Your task to perform on an android device: open wifi settings Image 0: 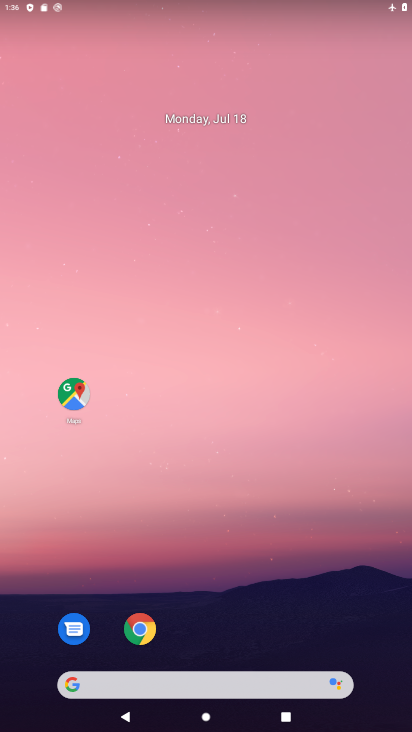
Step 0: drag from (238, 647) to (205, 50)
Your task to perform on an android device: open wifi settings Image 1: 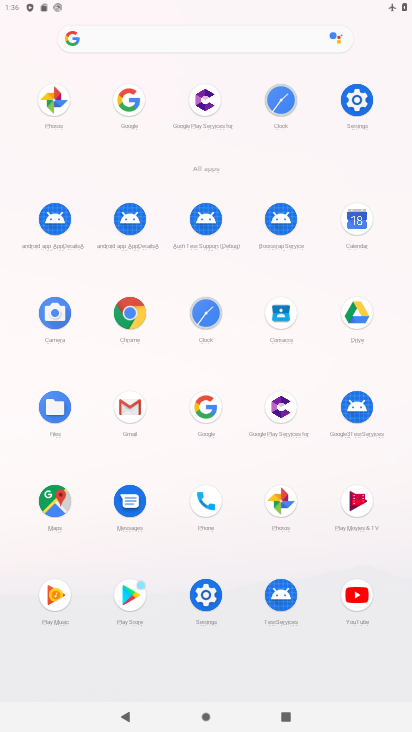
Step 1: click (359, 99)
Your task to perform on an android device: open wifi settings Image 2: 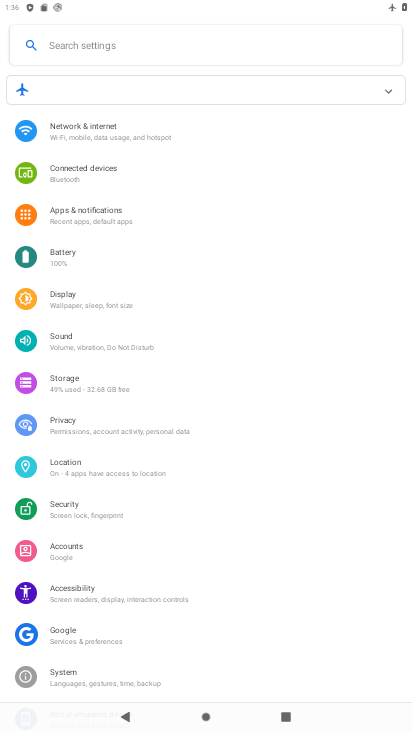
Step 2: click (74, 132)
Your task to perform on an android device: open wifi settings Image 3: 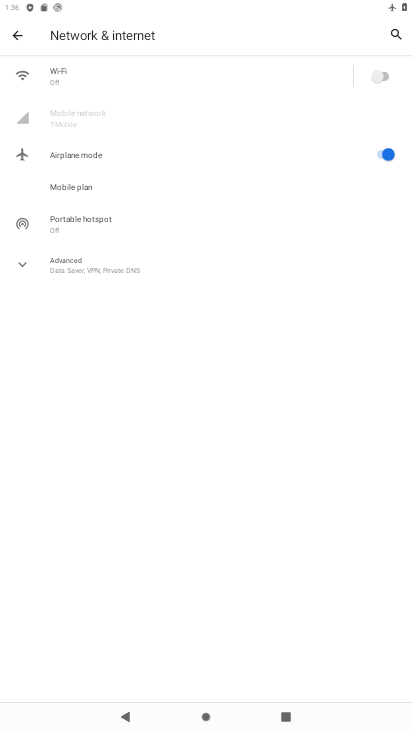
Step 3: click (379, 152)
Your task to perform on an android device: open wifi settings Image 4: 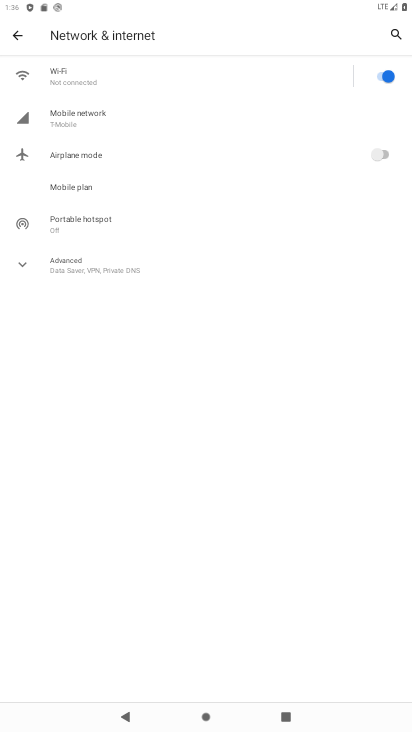
Step 4: click (381, 77)
Your task to perform on an android device: open wifi settings Image 5: 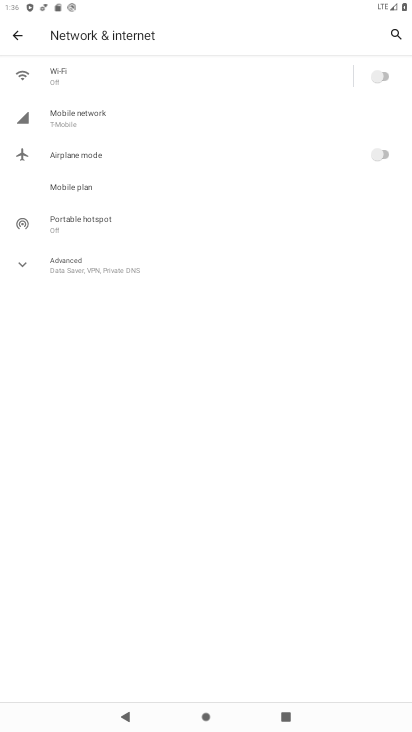
Step 5: click (260, 86)
Your task to perform on an android device: open wifi settings Image 6: 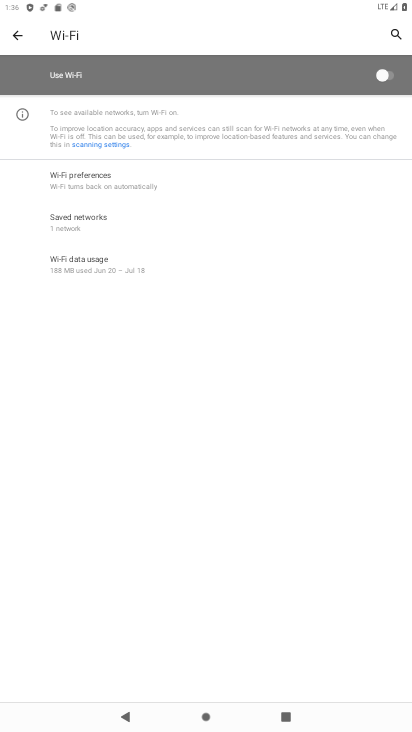
Step 6: click (389, 76)
Your task to perform on an android device: open wifi settings Image 7: 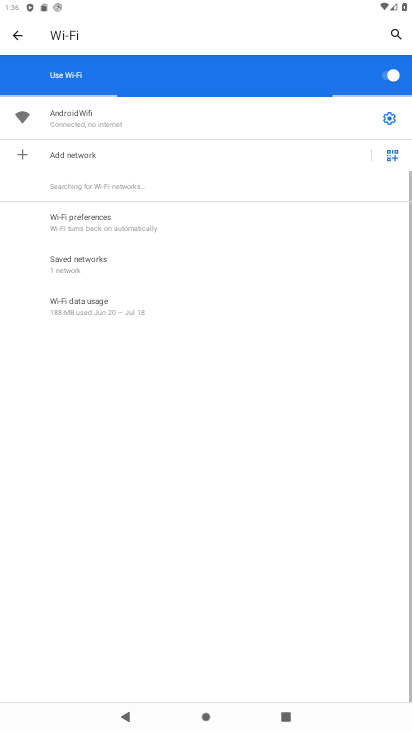
Step 7: click (390, 120)
Your task to perform on an android device: open wifi settings Image 8: 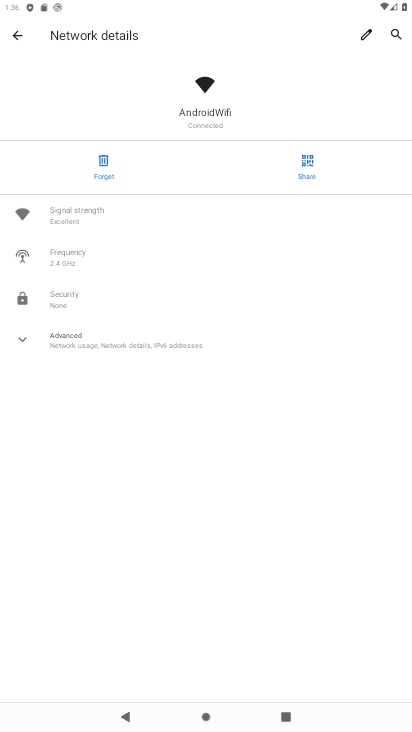
Step 8: click (103, 350)
Your task to perform on an android device: open wifi settings Image 9: 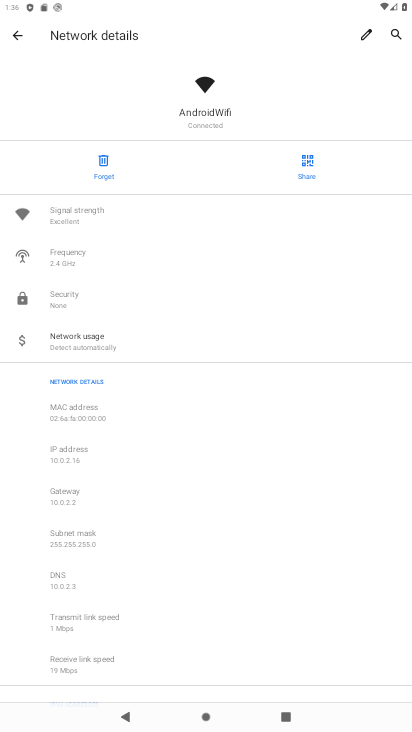
Step 9: task complete